Your task to perform on an android device: Turn off the flashlight Image 0: 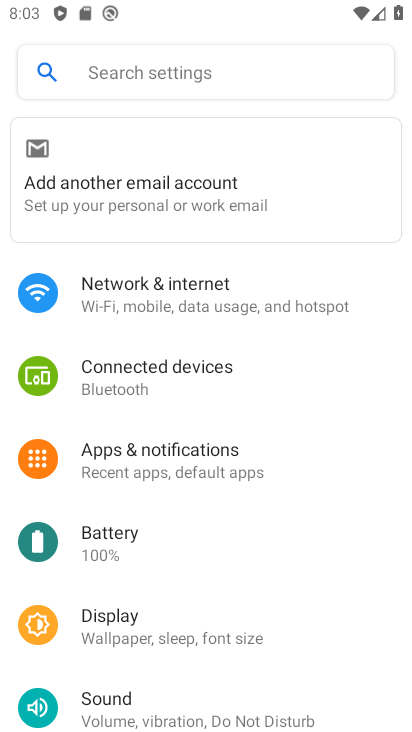
Step 0: press home button
Your task to perform on an android device: Turn off the flashlight Image 1: 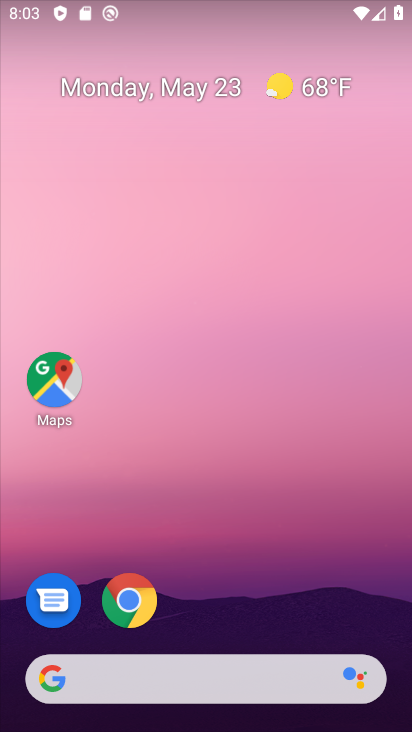
Step 1: drag from (27, 587) to (287, 80)
Your task to perform on an android device: Turn off the flashlight Image 2: 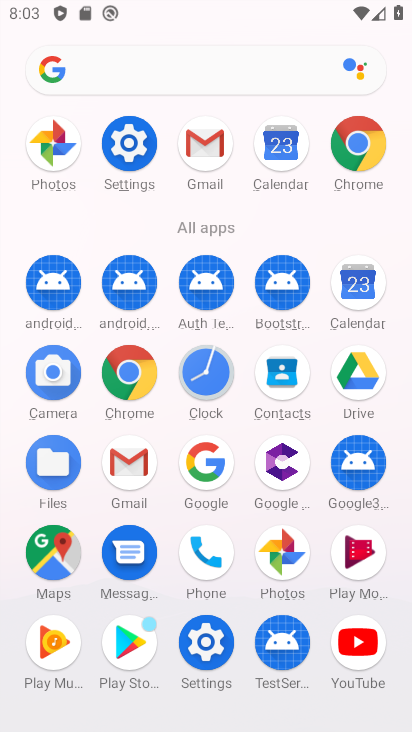
Step 2: click (118, 136)
Your task to perform on an android device: Turn off the flashlight Image 3: 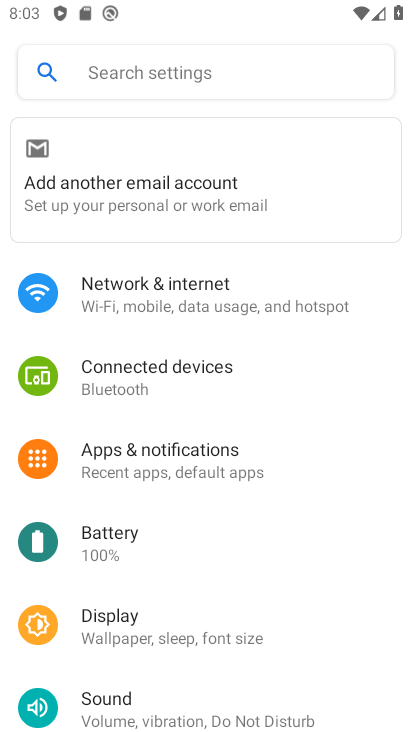
Step 3: click (155, 631)
Your task to perform on an android device: Turn off the flashlight Image 4: 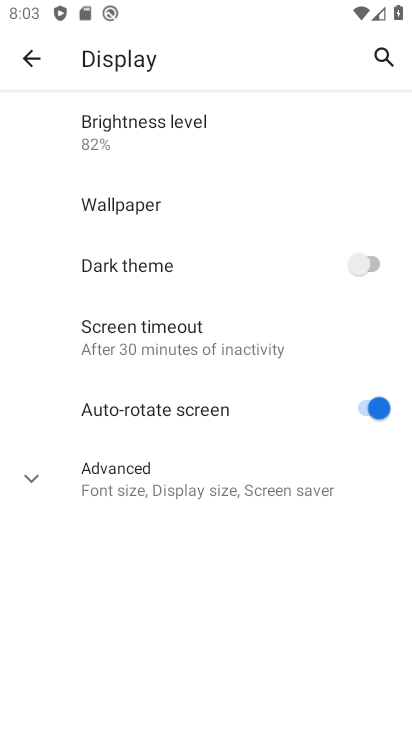
Step 4: task complete